Your task to perform on an android device: turn off notifications in google photos Image 0: 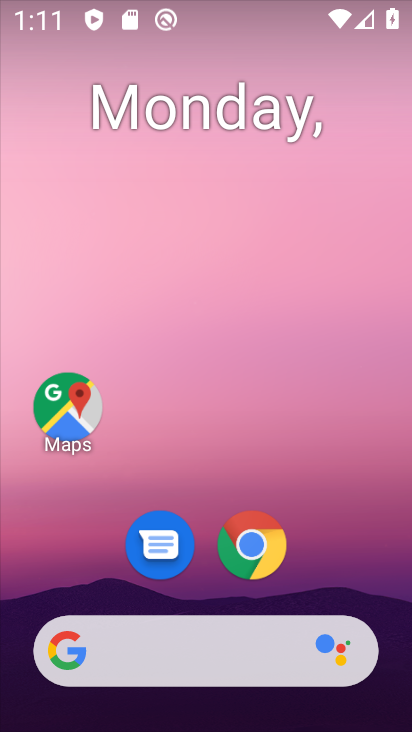
Step 0: drag from (234, 713) to (232, 198)
Your task to perform on an android device: turn off notifications in google photos Image 1: 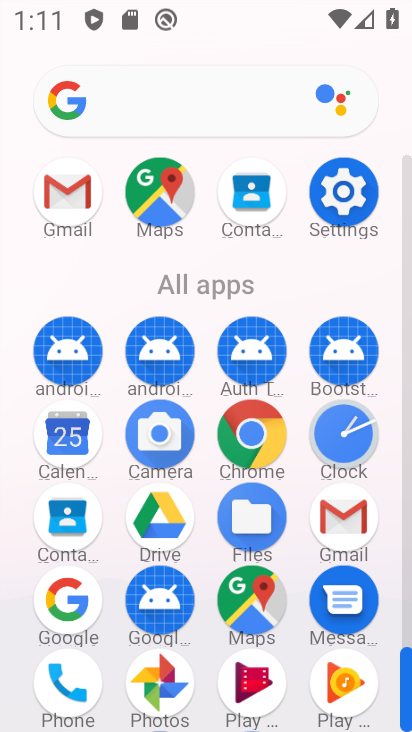
Step 1: click (154, 677)
Your task to perform on an android device: turn off notifications in google photos Image 2: 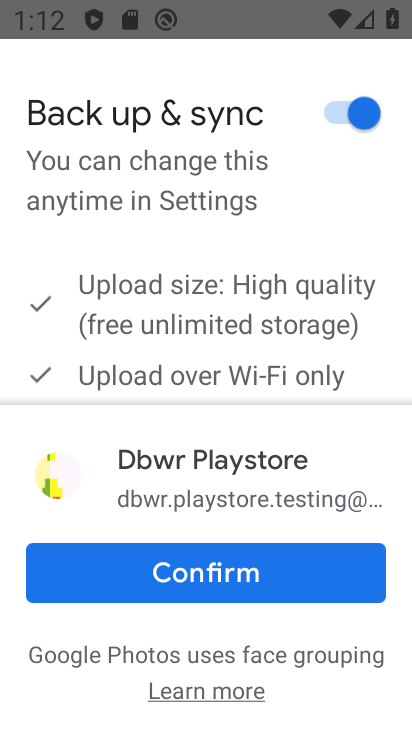
Step 2: click (207, 580)
Your task to perform on an android device: turn off notifications in google photos Image 3: 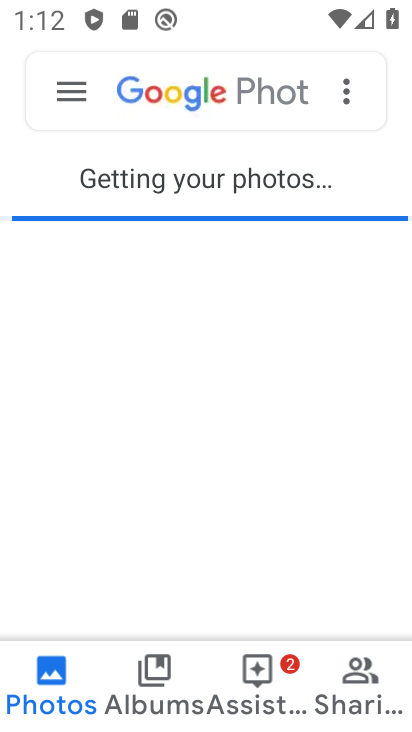
Step 3: click (64, 82)
Your task to perform on an android device: turn off notifications in google photos Image 4: 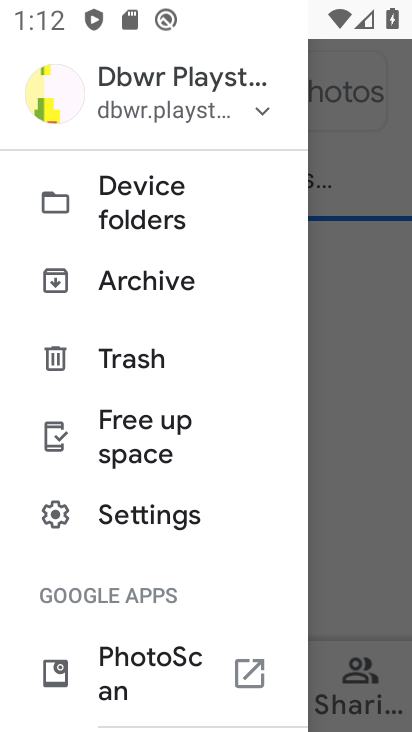
Step 4: click (137, 511)
Your task to perform on an android device: turn off notifications in google photos Image 5: 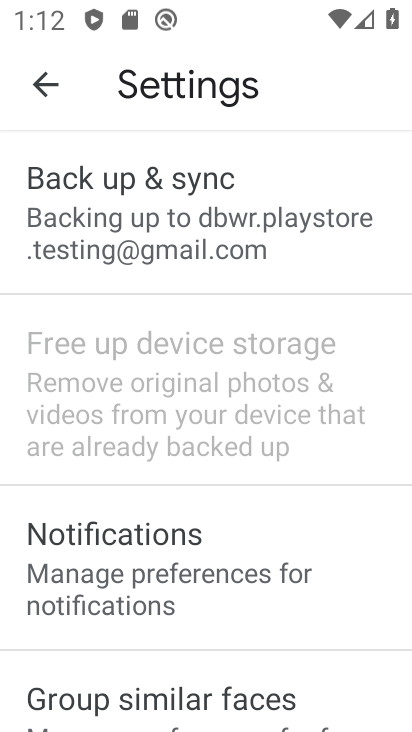
Step 5: click (127, 560)
Your task to perform on an android device: turn off notifications in google photos Image 6: 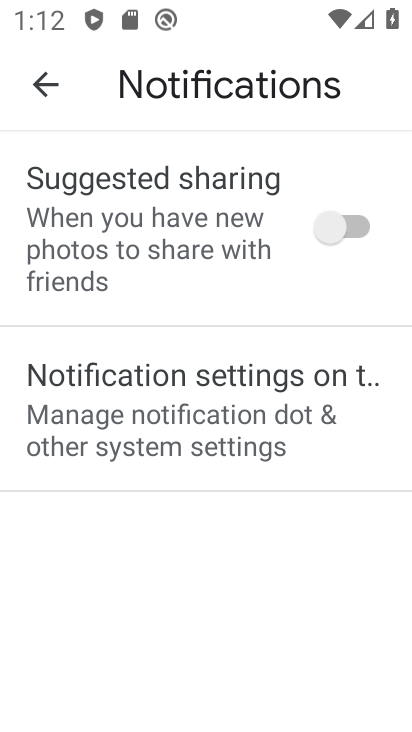
Step 6: click (175, 407)
Your task to perform on an android device: turn off notifications in google photos Image 7: 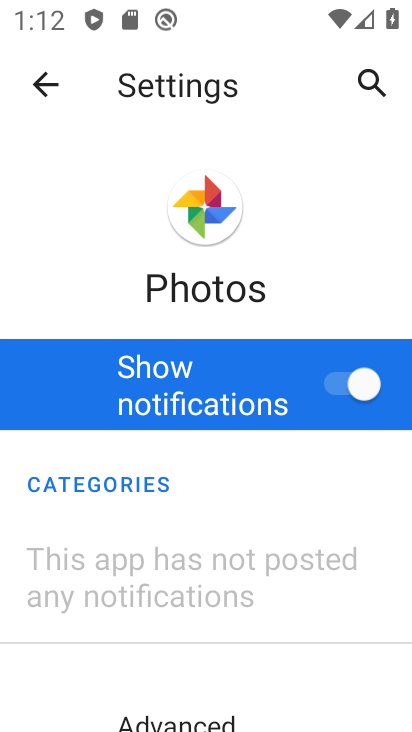
Step 7: click (333, 378)
Your task to perform on an android device: turn off notifications in google photos Image 8: 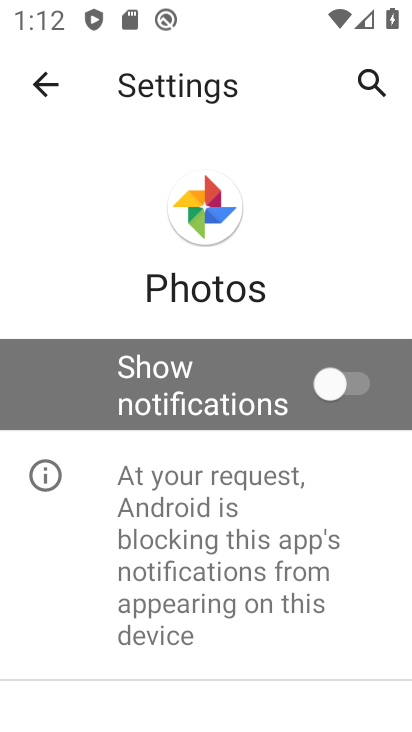
Step 8: task complete